Your task to perform on an android device: Open notification settings Image 0: 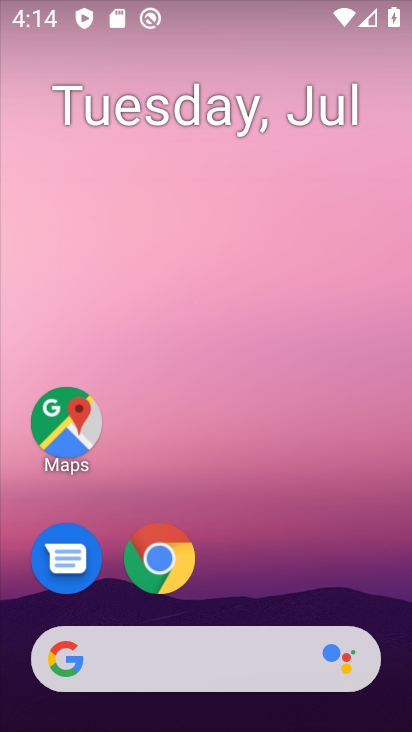
Step 0: drag from (331, 531) to (348, 226)
Your task to perform on an android device: Open notification settings Image 1: 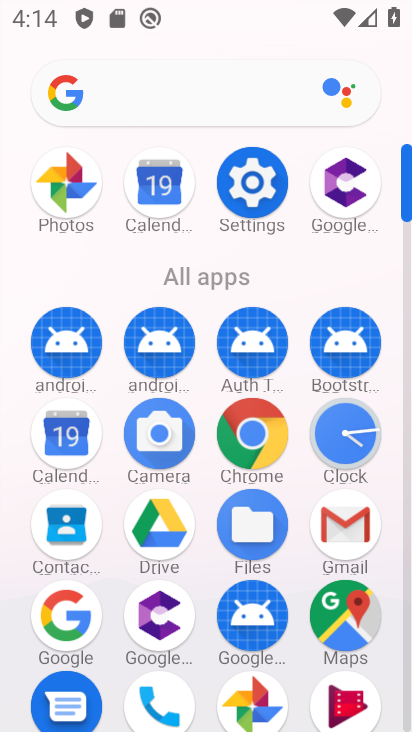
Step 1: click (280, 210)
Your task to perform on an android device: Open notification settings Image 2: 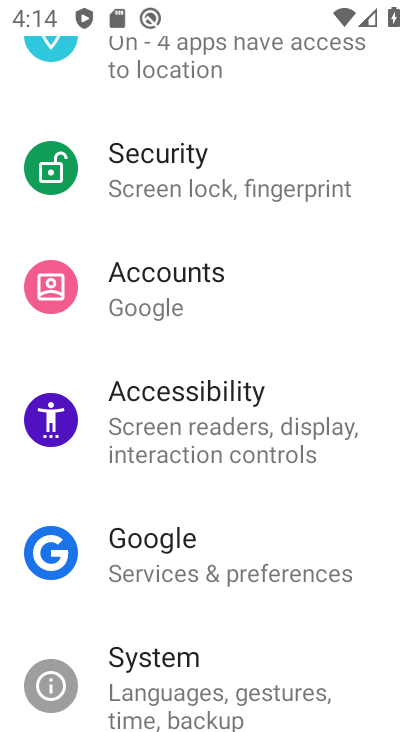
Step 2: drag from (237, 297) to (233, 722)
Your task to perform on an android device: Open notification settings Image 3: 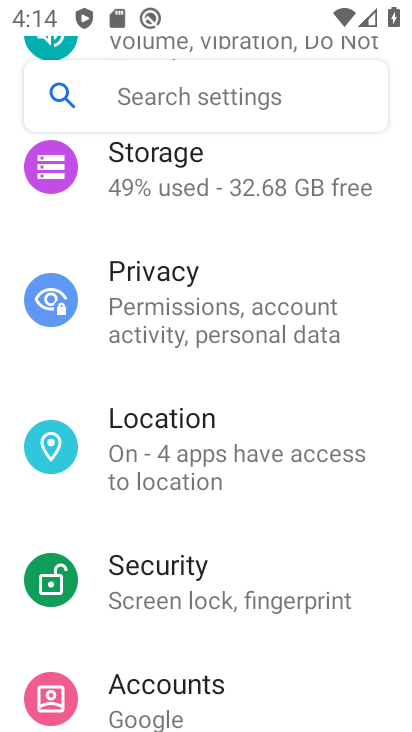
Step 3: drag from (224, 323) to (200, 650)
Your task to perform on an android device: Open notification settings Image 4: 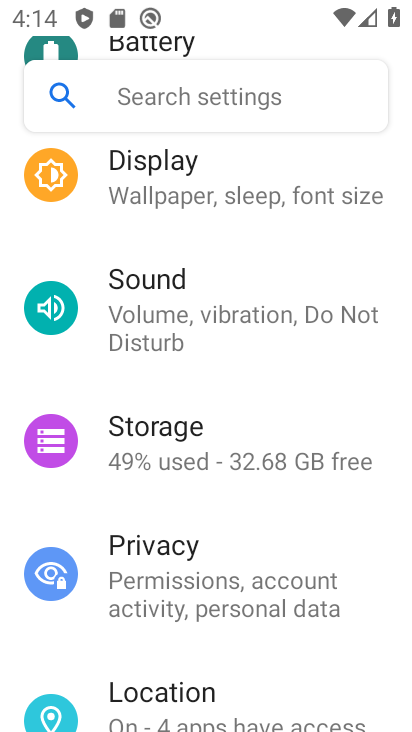
Step 4: drag from (229, 299) to (233, 691)
Your task to perform on an android device: Open notification settings Image 5: 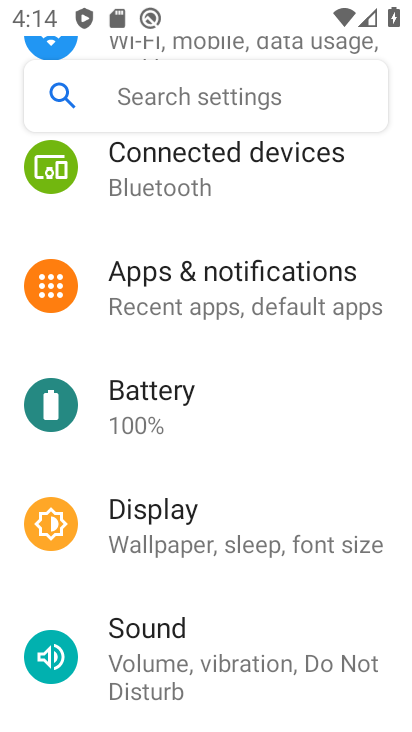
Step 5: click (271, 290)
Your task to perform on an android device: Open notification settings Image 6: 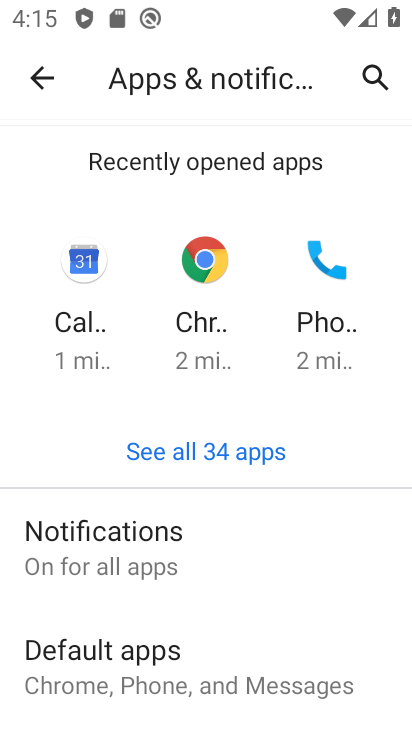
Step 6: click (157, 551)
Your task to perform on an android device: Open notification settings Image 7: 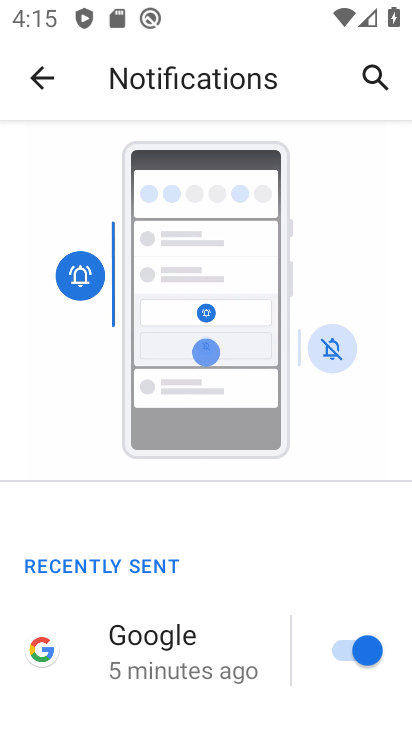
Step 7: task complete